Your task to perform on an android device: Empty the shopping cart on ebay.com. Image 0: 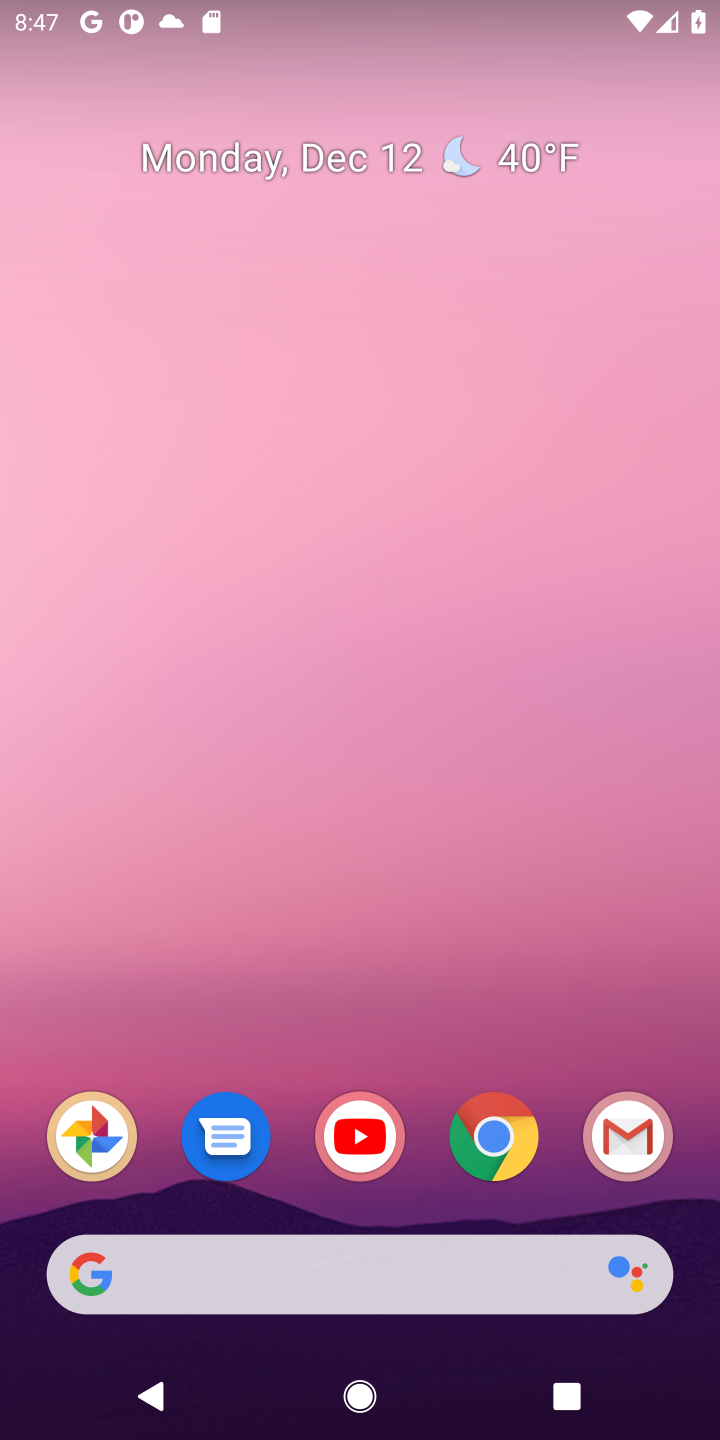
Step 0: click (494, 1142)
Your task to perform on an android device: Empty the shopping cart on ebay.com. Image 1: 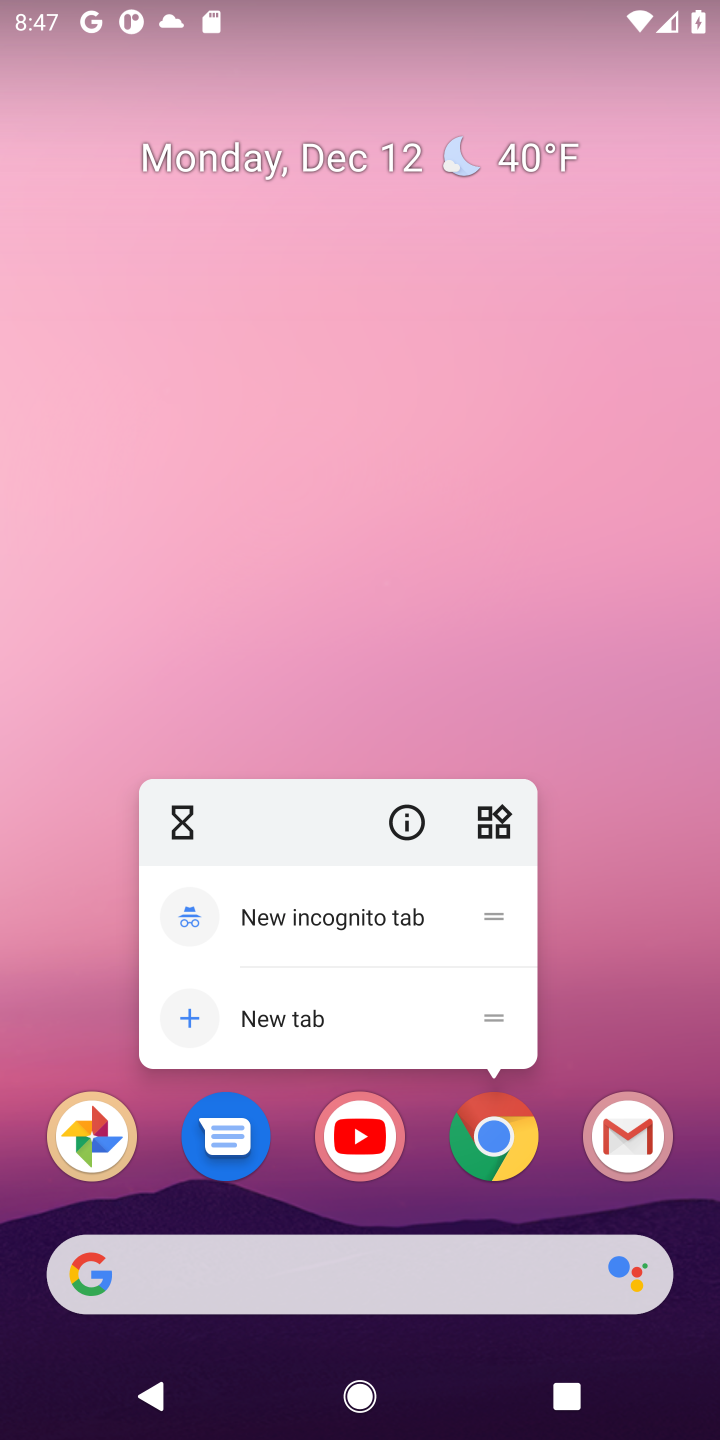
Step 1: click (500, 1150)
Your task to perform on an android device: Empty the shopping cart on ebay.com. Image 2: 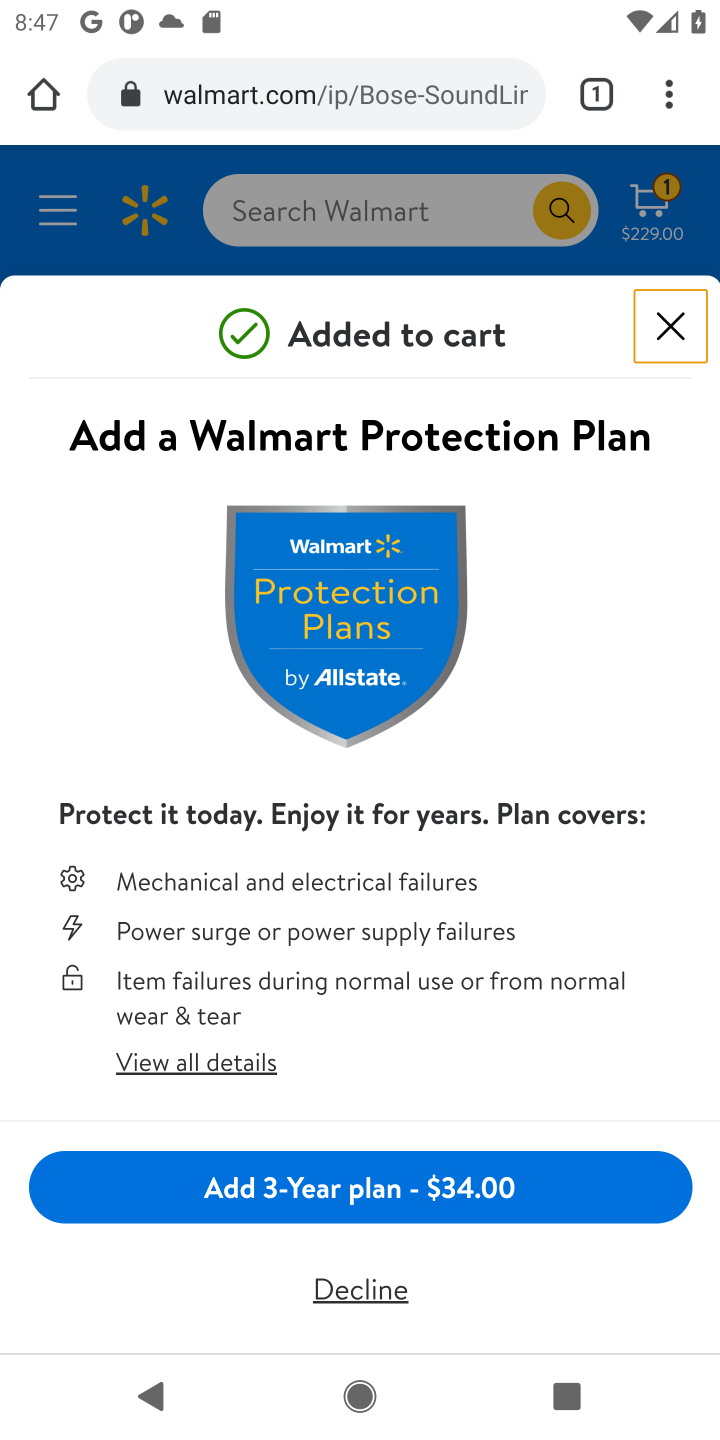
Step 2: click (284, 105)
Your task to perform on an android device: Empty the shopping cart on ebay.com. Image 3: 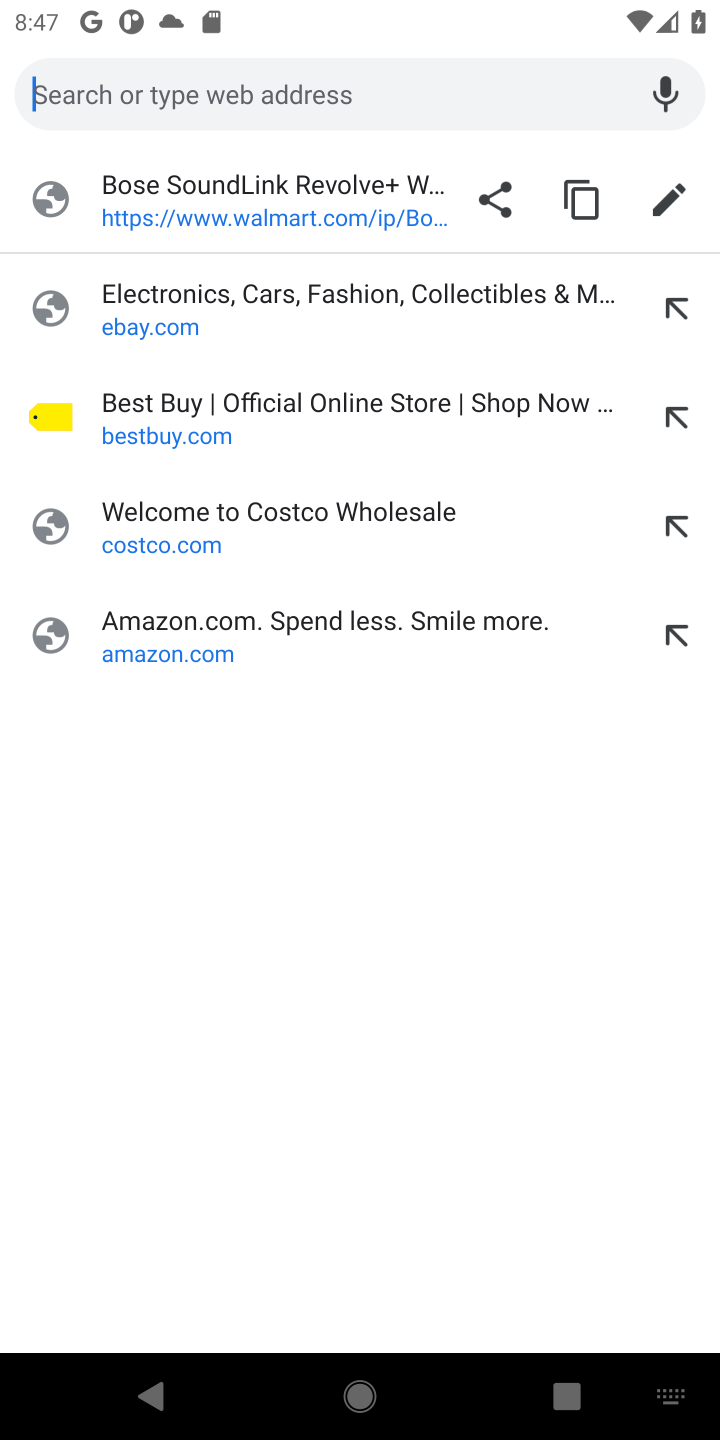
Step 3: click (158, 323)
Your task to perform on an android device: Empty the shopping cart on ebay.com. Image 4: 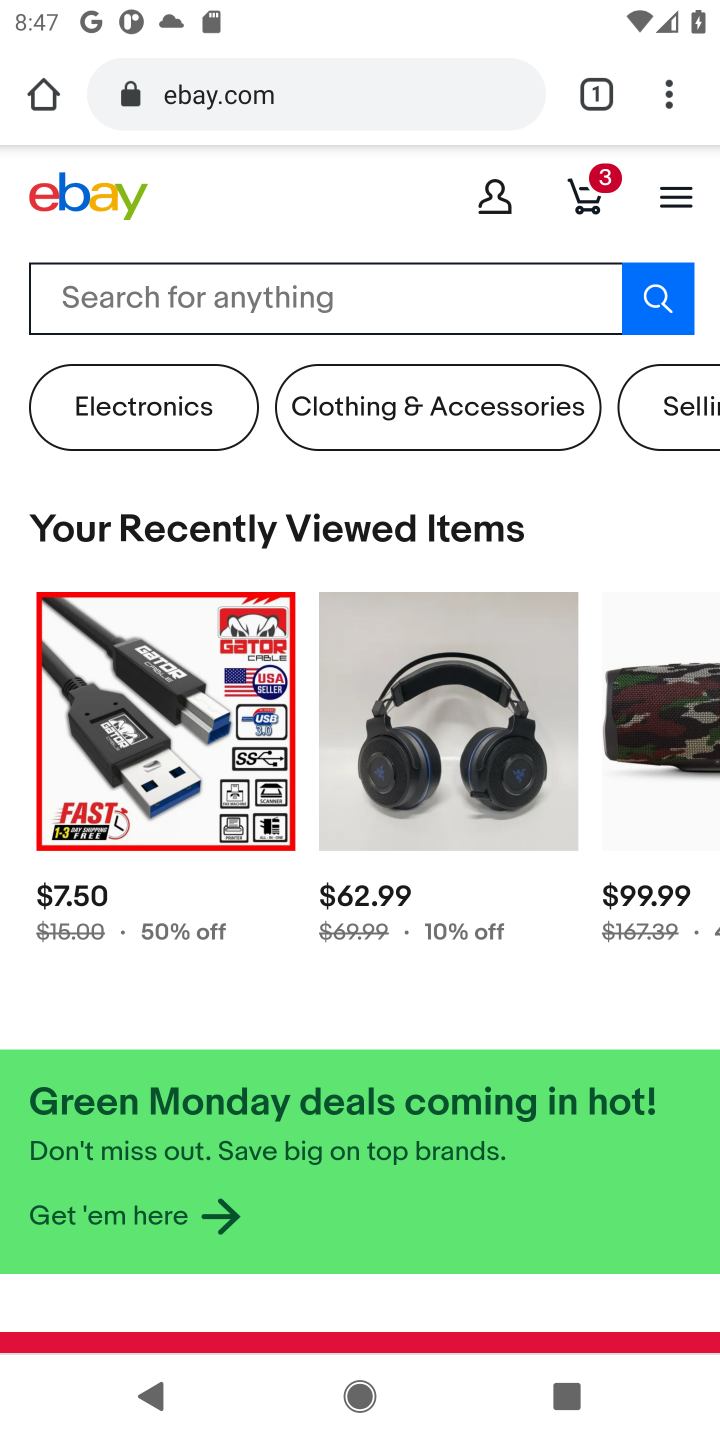
Step 4: click (576, 204)
Your task to perform on an android device: Empty the shopping cart on ebay.com. Image 5: 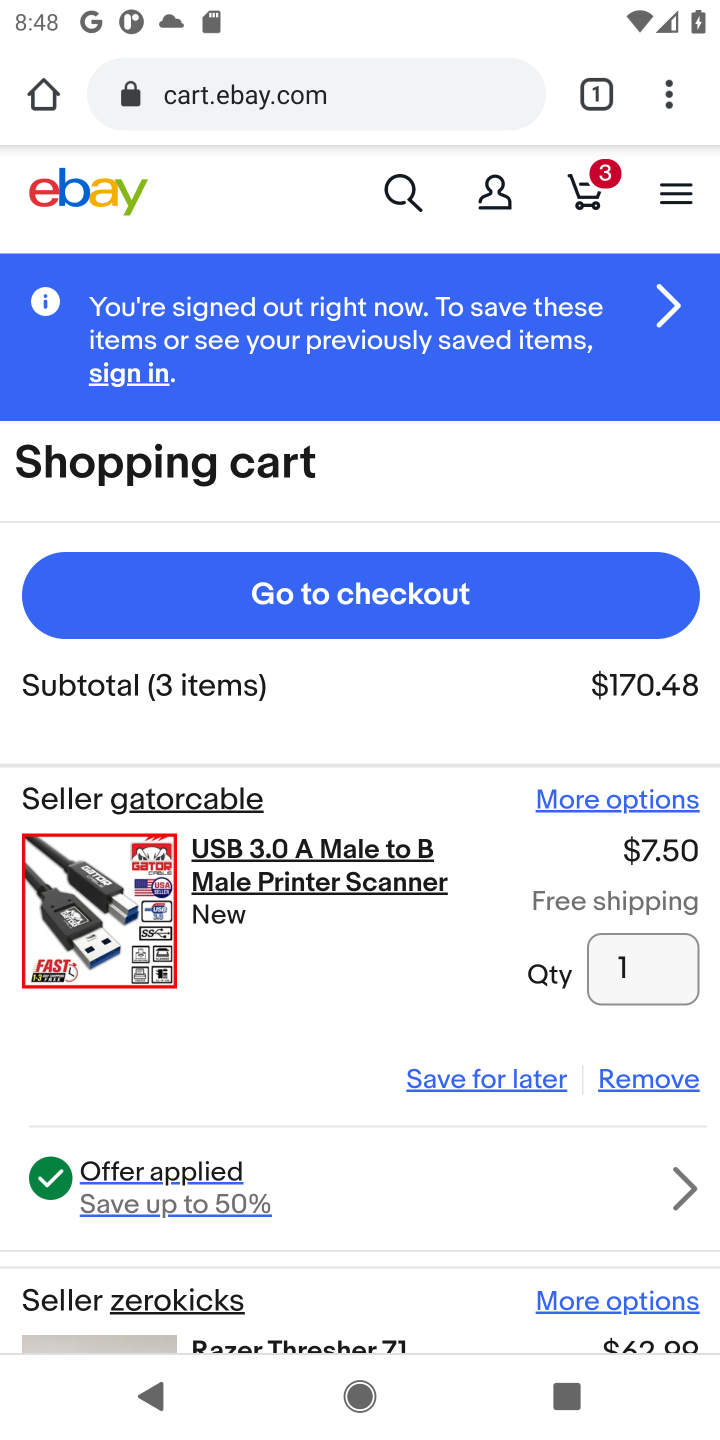
Step 5: click (626, 1090)
Your task to perform on an android device: Empty the shopping cart on ebay.com. Image 6: 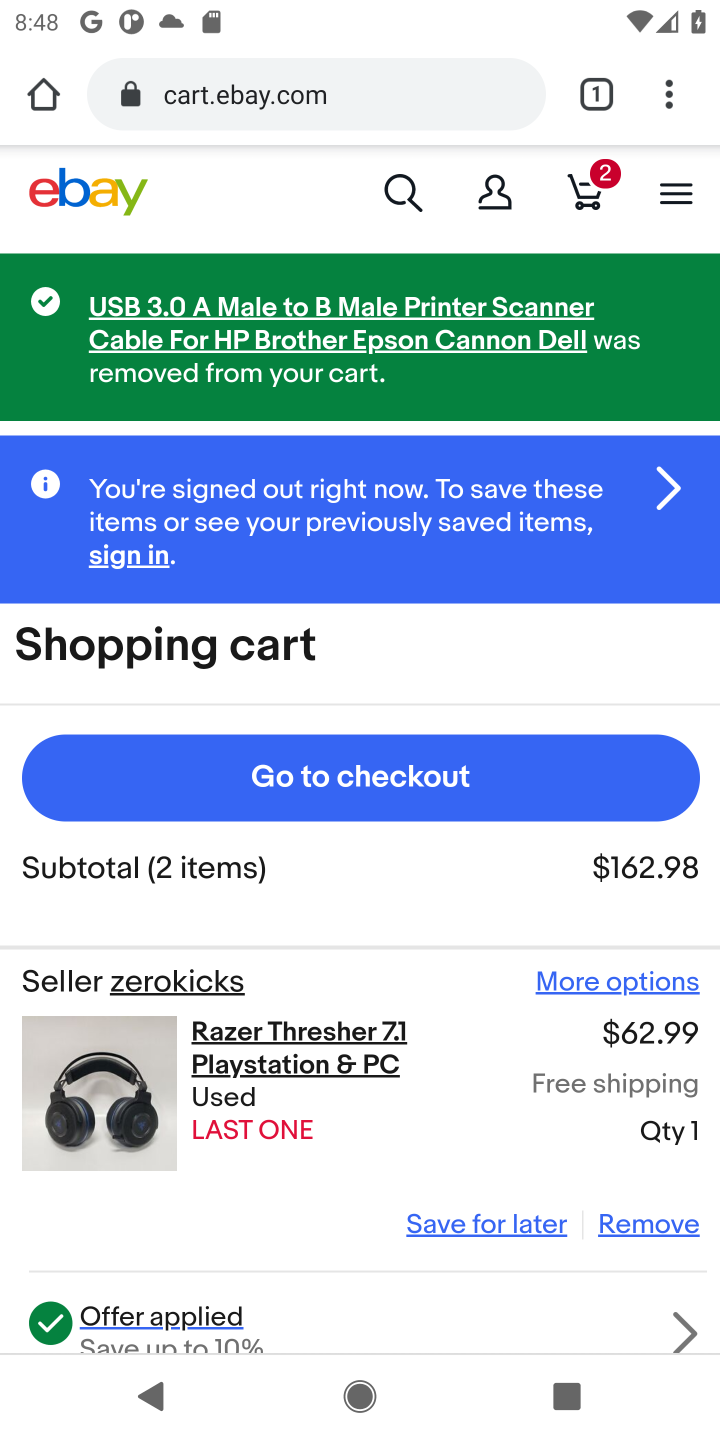
Step 6: click (653, 1233)
Your task to perform on an android device: Empty the shopping cart on ebay.com. Image 7: 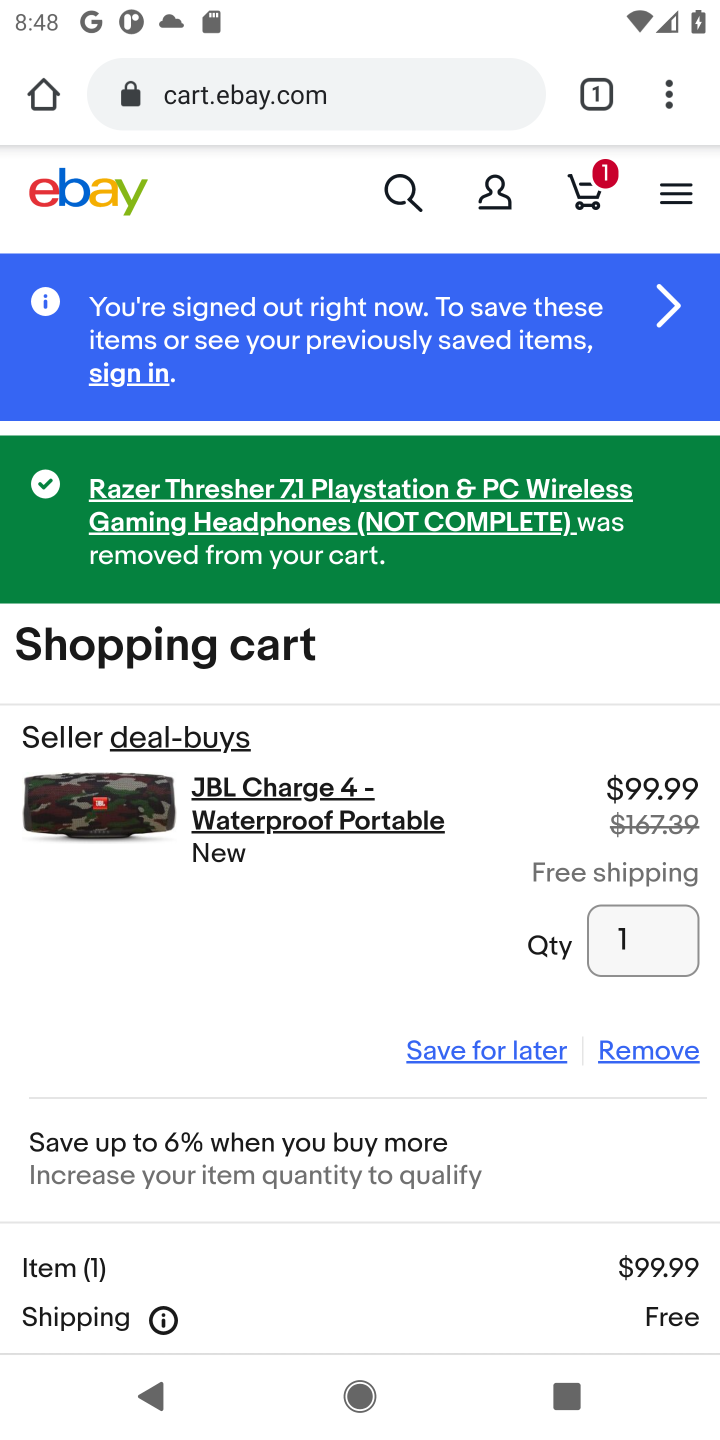
Step 7: click (630, 1056)
Your task to perform on an android device: Empty the shopping cart on ebay.com. Image 8: 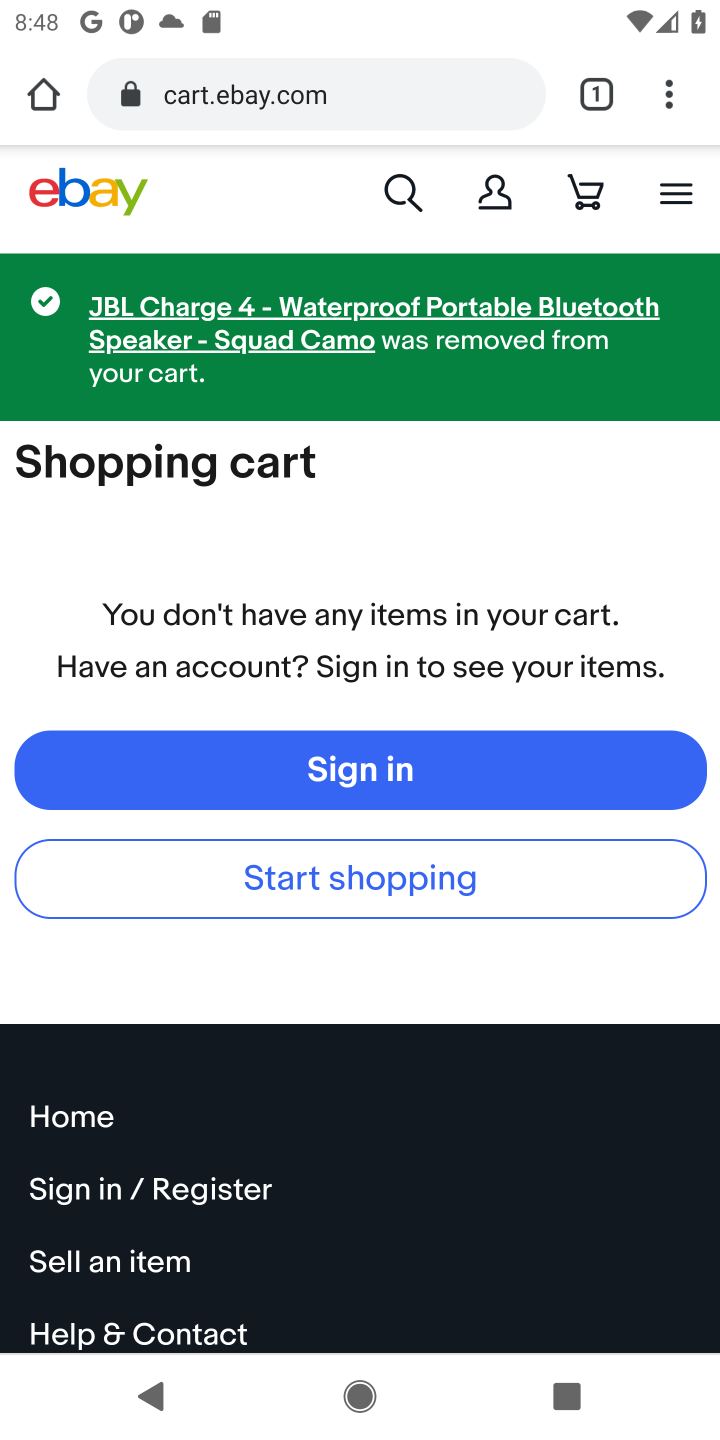
Step 8: task complete